Your task to perform on an android device: open device folders in google photos Image 0: 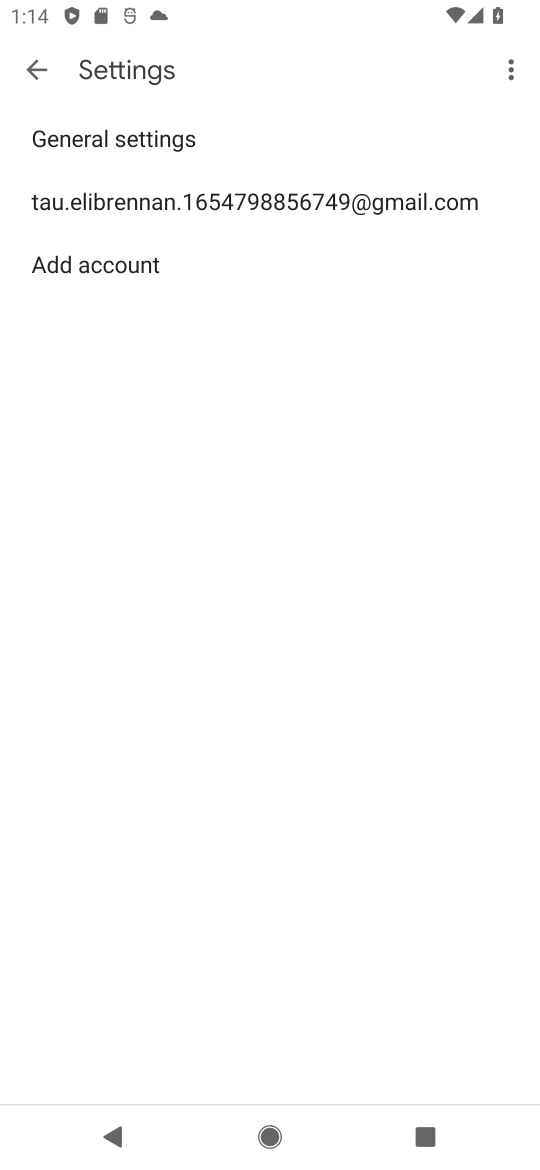
Step 0: press home button
Your task to perform on an android device: open device folders in google photos Image 1: 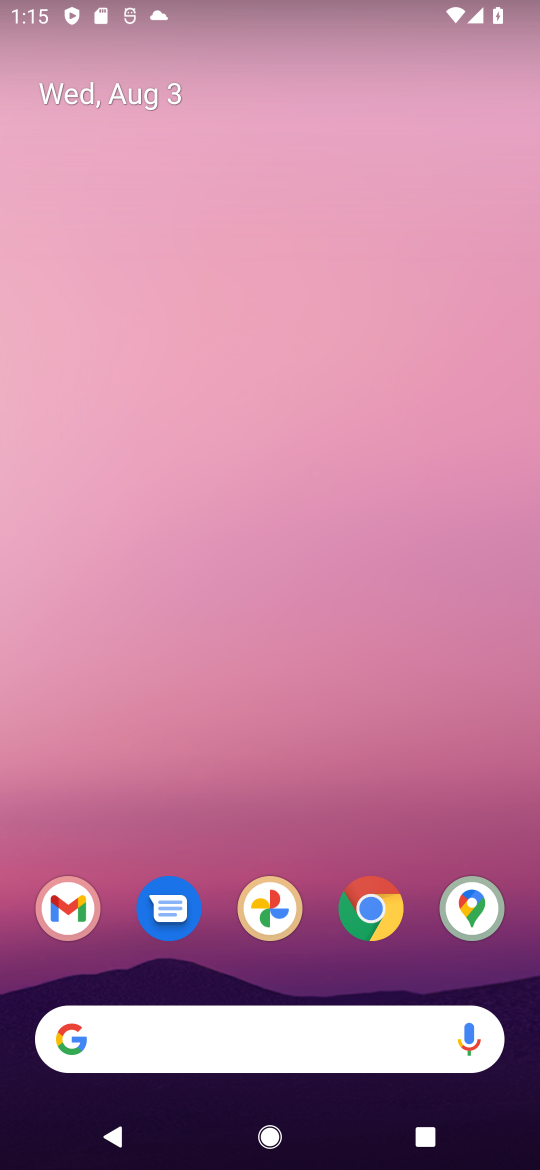
Step 1: click (281, 909)
Your task to perform on an android device: open device folders in google photos Image 2: 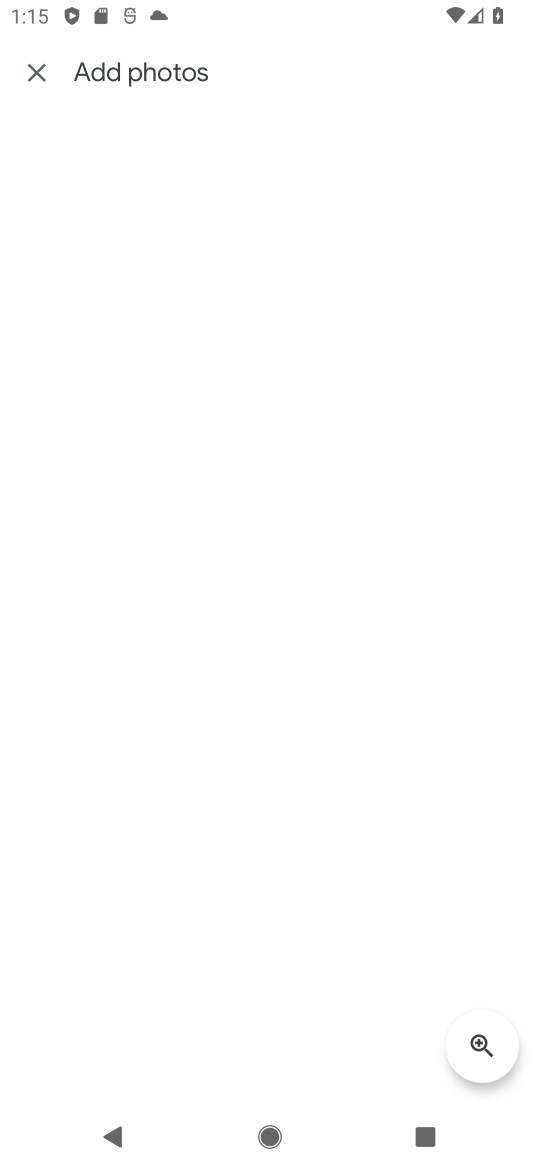
Step 2: click (29, 81)
Your task to perform on an android device: open device folders in google photos Image 3: 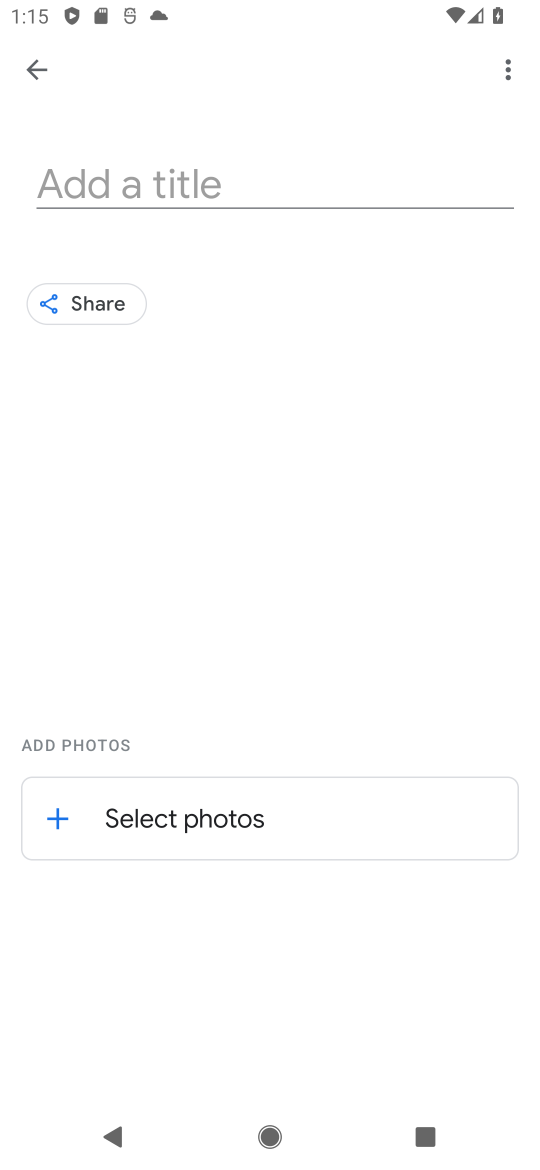
Step 3: click (29, 81)
Your task to perform on an android device: open device folders in google photos Image 4: 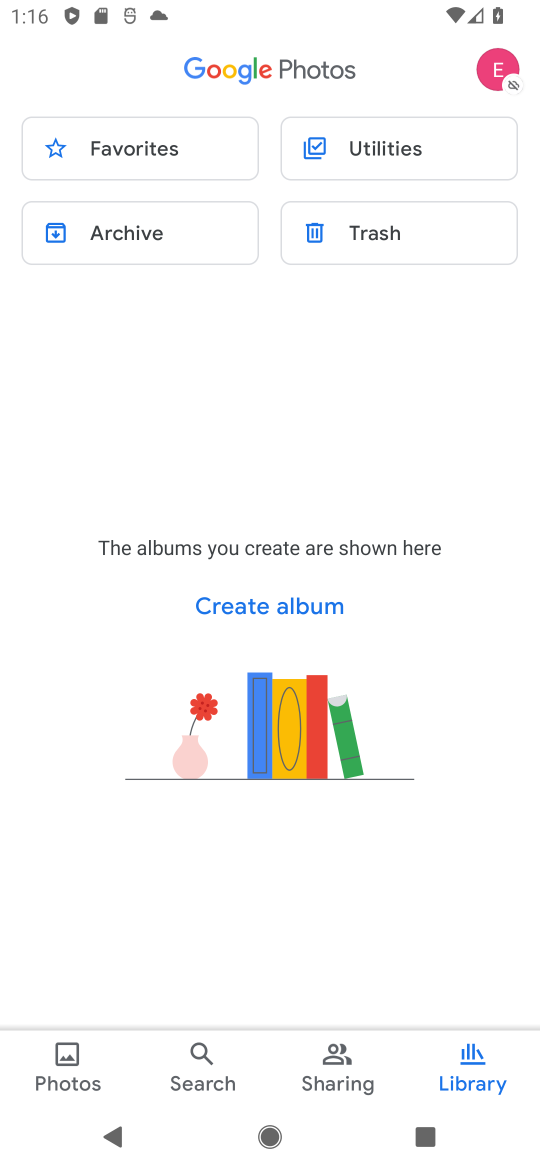
Step 4: click (69, 1076)
Your task to perform on an android device: open device folders in google photos Image 5: 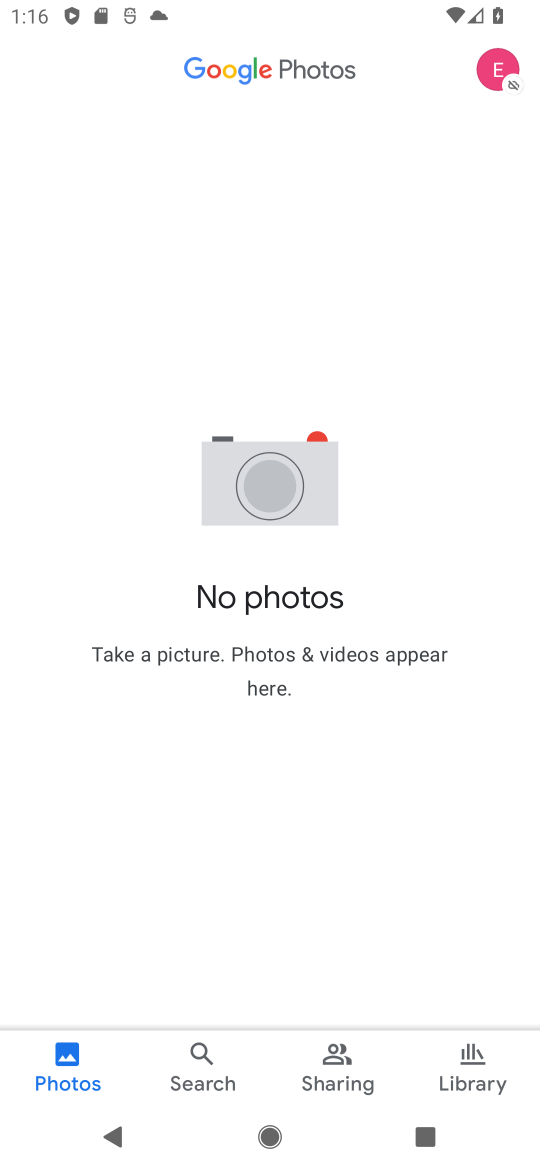
Step 5: click (493, 67)
Your task to perform on an android device: open device folders in google photos Image 6: 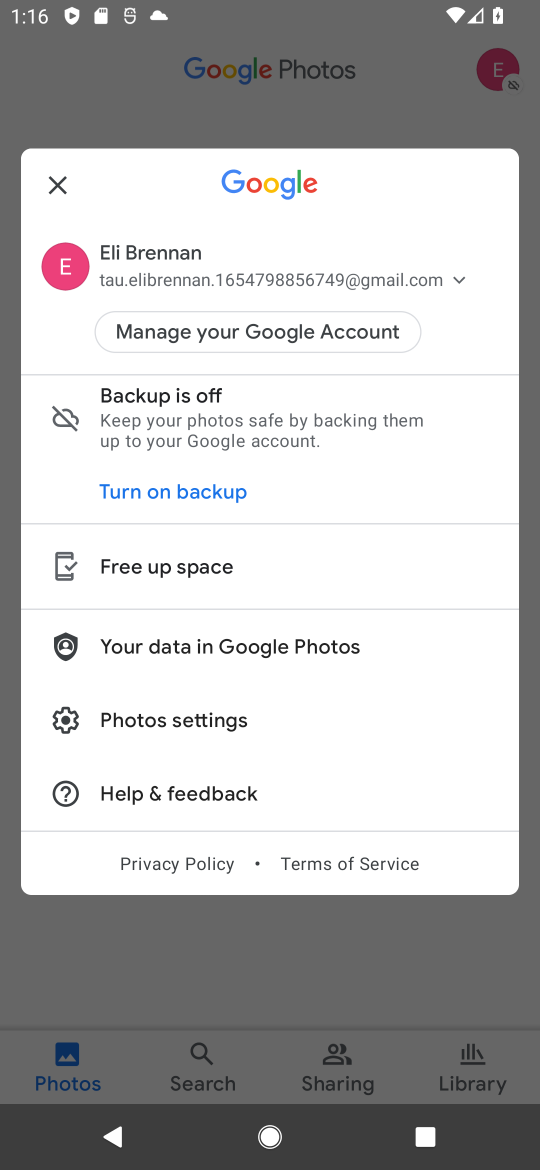
Step 6: click (199, 703)
Your task to perform on an android device: open device folders in google photos Image 7: 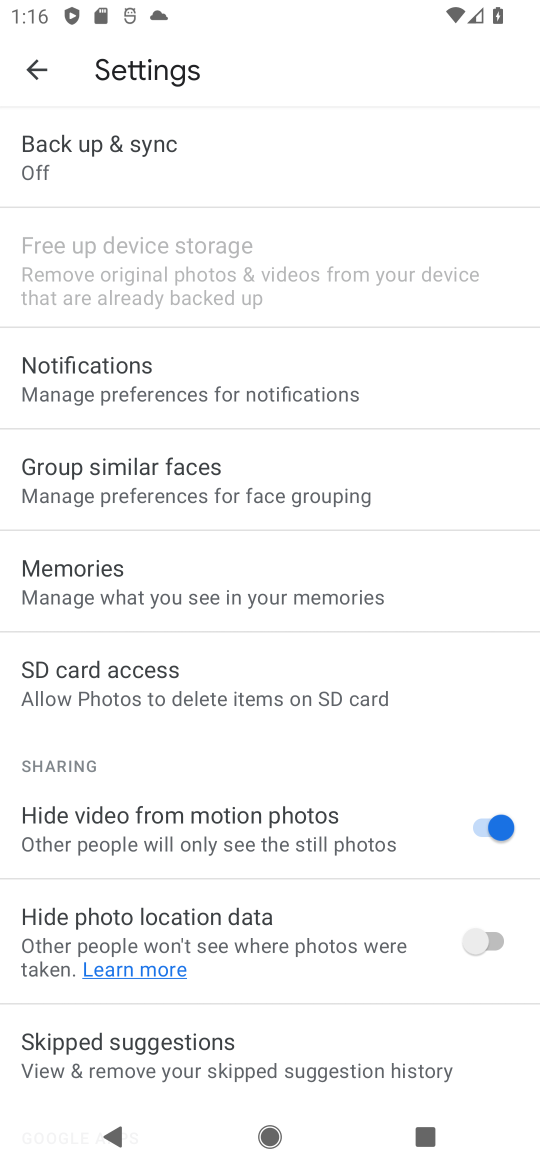
Step 7: task complete